Your task to perform on an android device: See recent photos Image 0: 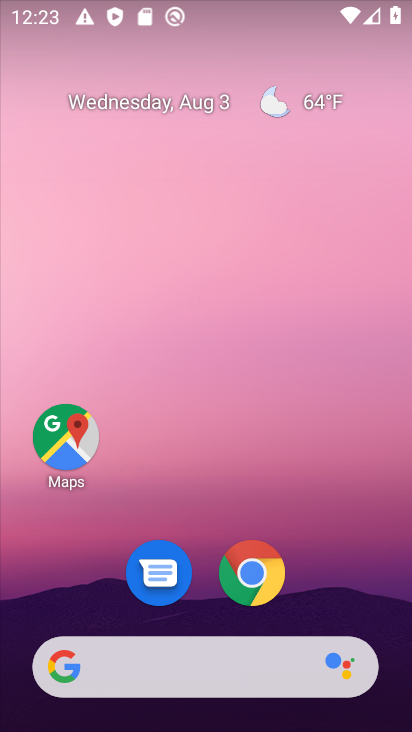
Step 0: drag from (181, 638) to (137, 175)
Your task to perform on an android device: See recent photos Image 1: 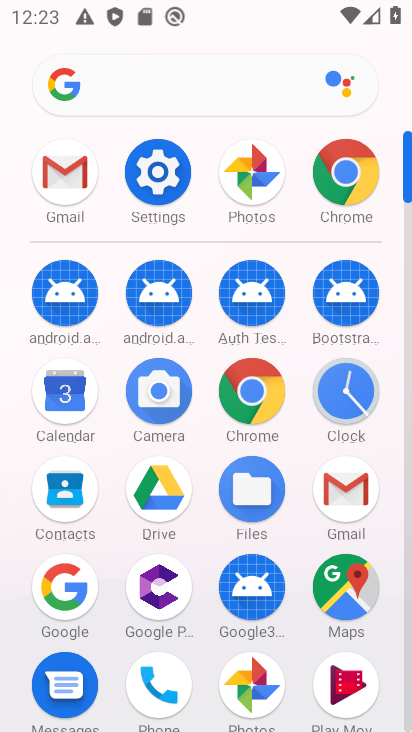
Step 1: drag from (281, 510) to (243, 179)
Your task to perform on an android device: See recent photos Image 2: 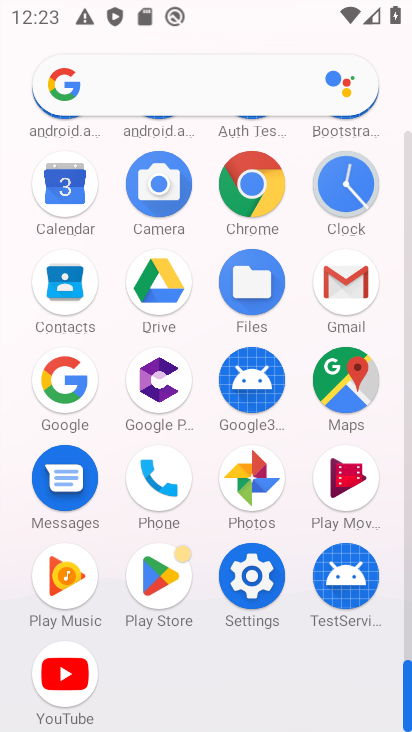
Step 2: click (240, 489)
Your task to perform on an android device: See recent photos Image 3: 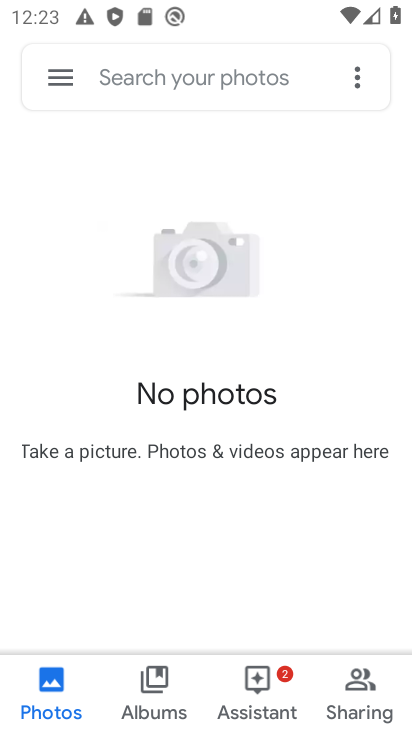
Step 3: task complete